Your task to perform on an android device: Search for sushi restaurants on Maps Image 0: 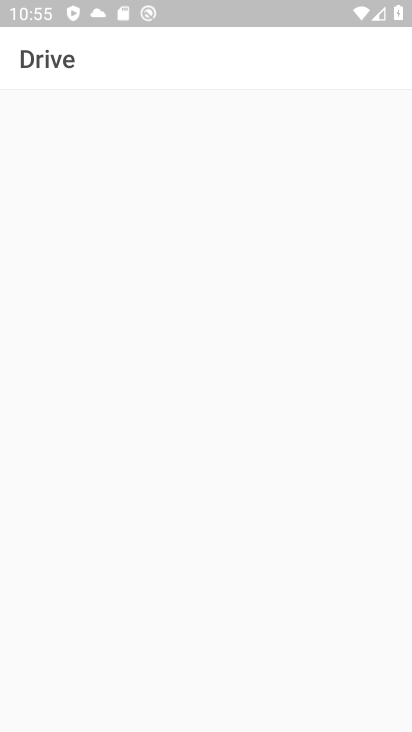
Step 0: press home button
Your task to perform on an android device: Search for sushi restaurants on Maps Image 1: 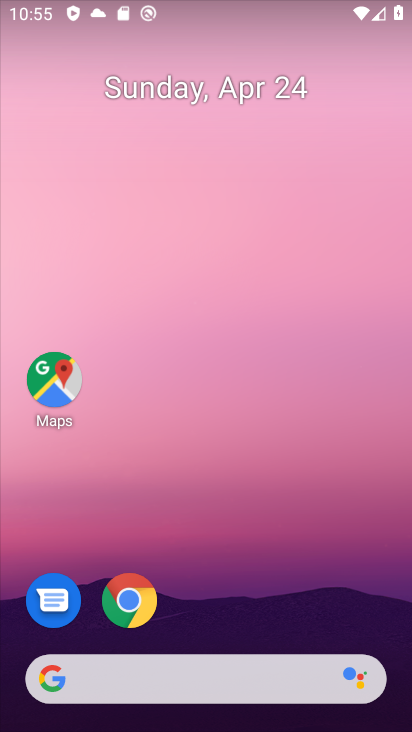
Step 1: click (56, 380)
Your task to perform on an android device: Search for sushi restaurants on Maps Image 2: 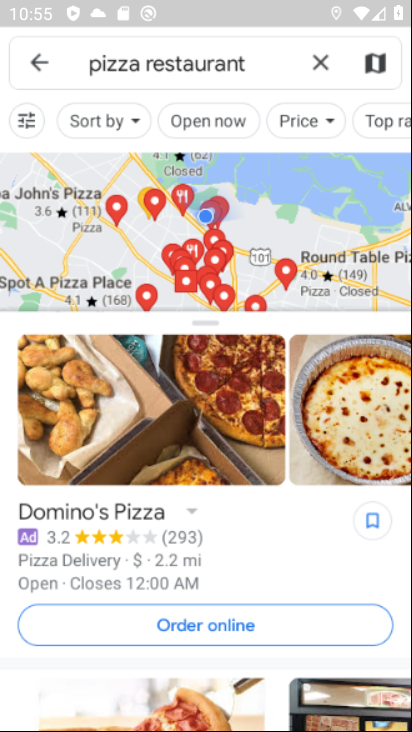
Step 2: click (320, 59)
Your task to perform on an android device: Search for sushi restaurants on Maps Image 3: 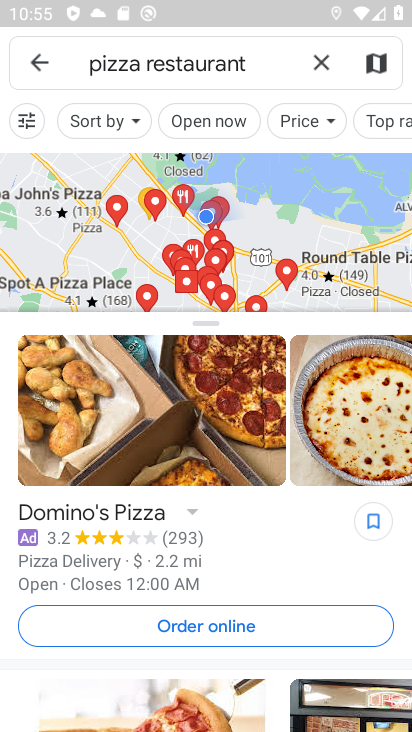
Step 3: click (321, 65)
Your task to perform on an android device: Search for sushi restaurants on Maps Image 4: 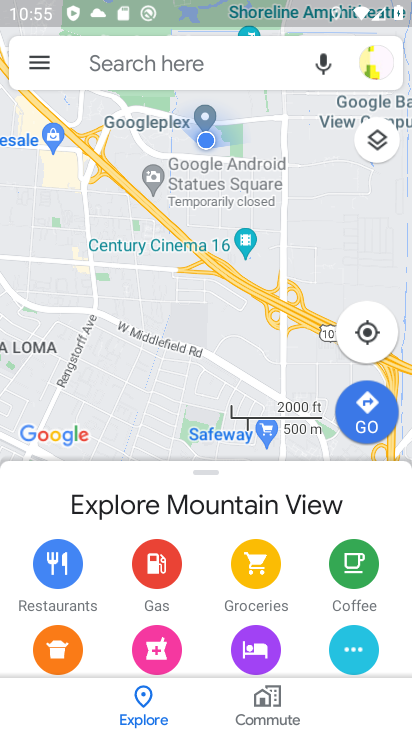
Step 4: click (223, 58)
Your task to perform on an android device: Search for sushi restaurants on Maps Image 5: 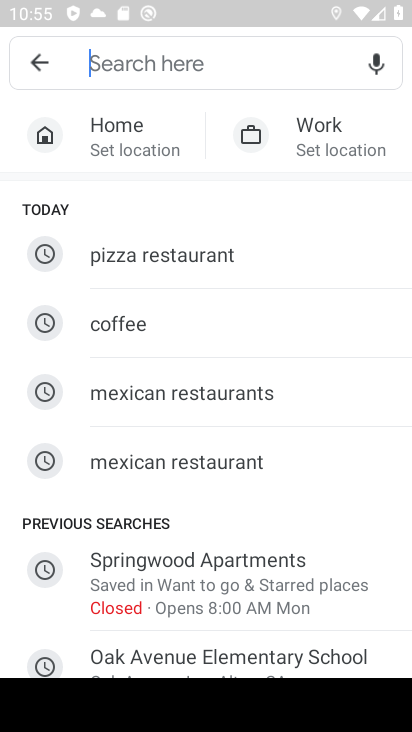
Step 5: type "sushi restaurants "
Your task to perform on an android device: Search for sushi restaurants on Maps Image 6: 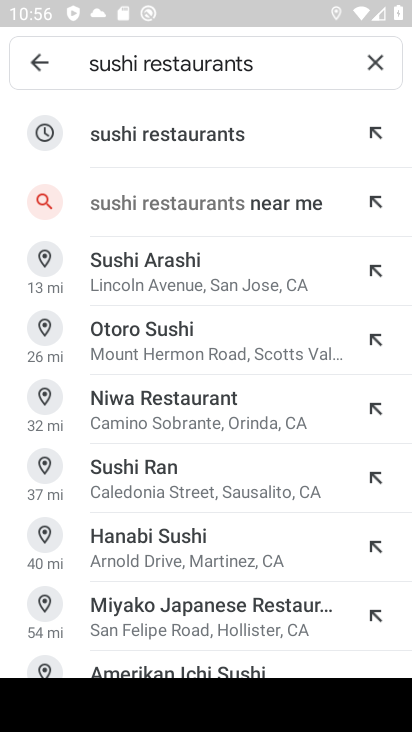
Step 6: click (177, 130)
Your task to perform on an android device: Search for sushi restaurants on Maps Image 7: 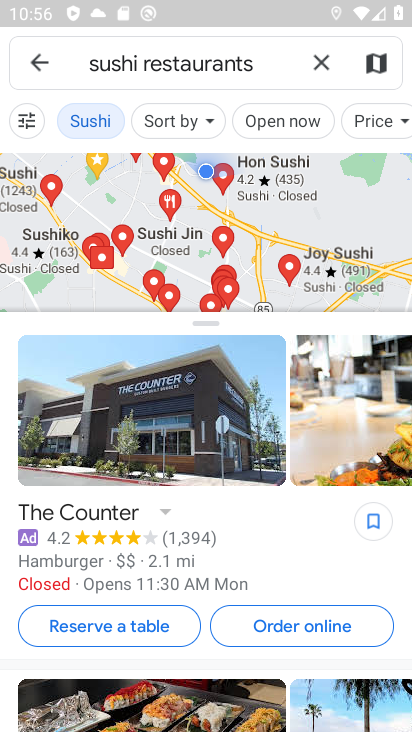
Step 7: task complete